Your task to perform on an android device: find snoozed emails in the gmail app Image 0: 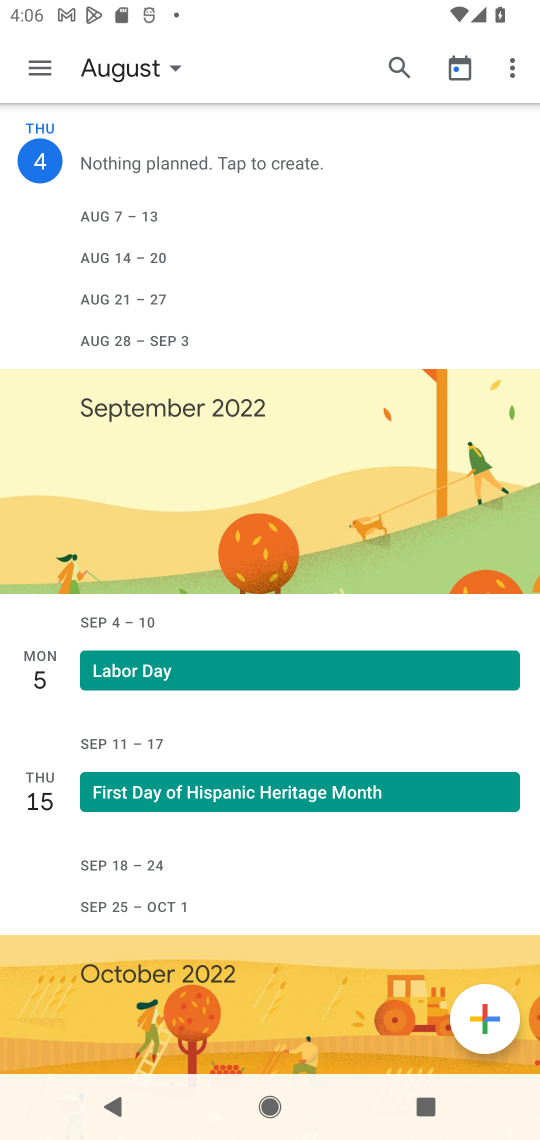
Step 0: press home button
Your task to perform on an android device: find snoozed emails in the gmail app Image 1: 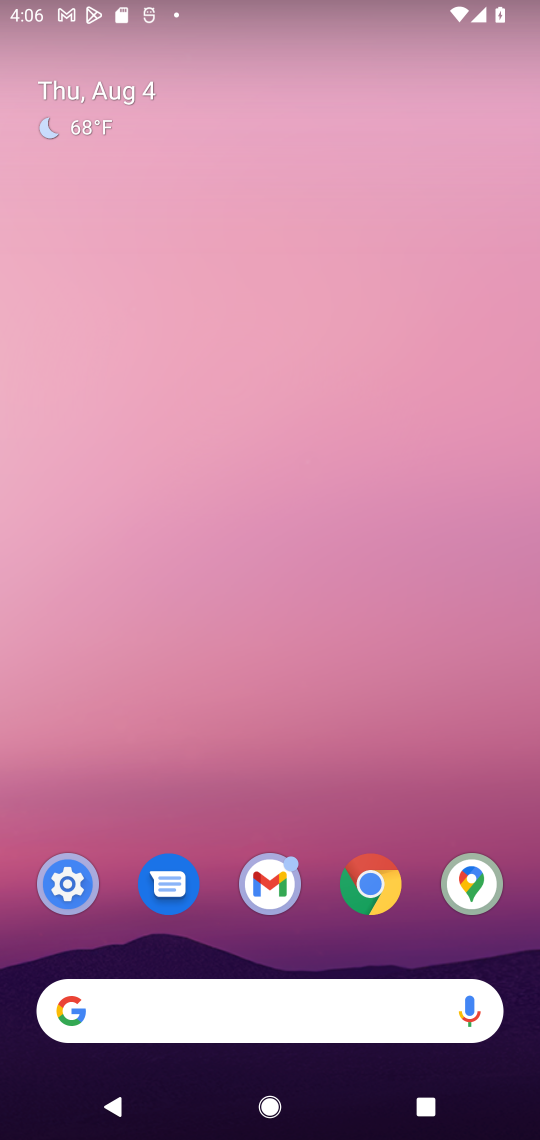
Step 1: drag from (319, 955) to (348, 260)
Your task to perform on an android device: find snoozed emails in the gmail app Image 2: 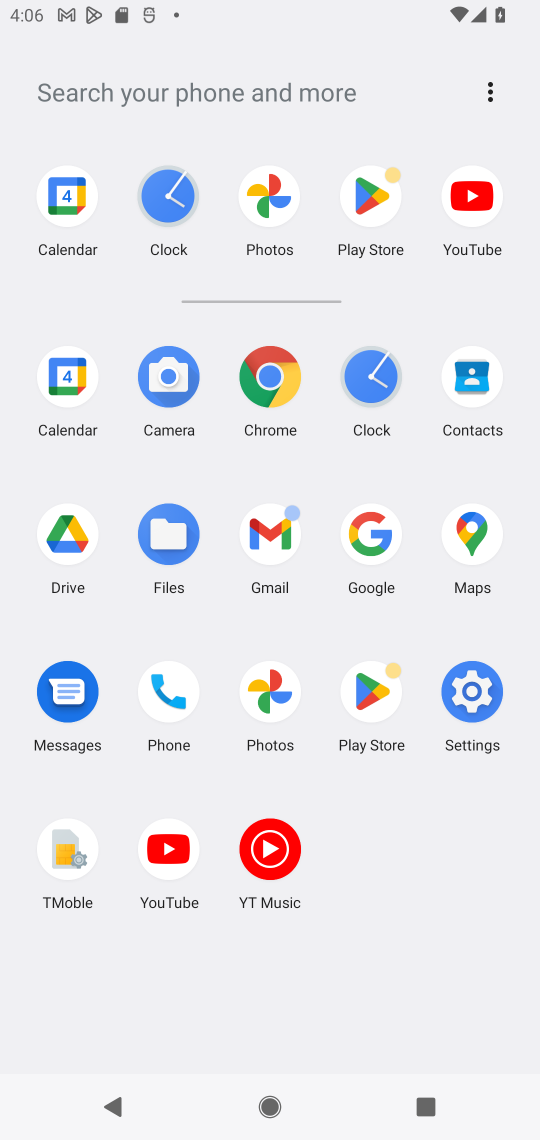
Step 2: click (301, 521)
Your task to perform on an android device: find snoozed emails in the gmail app Image 3: 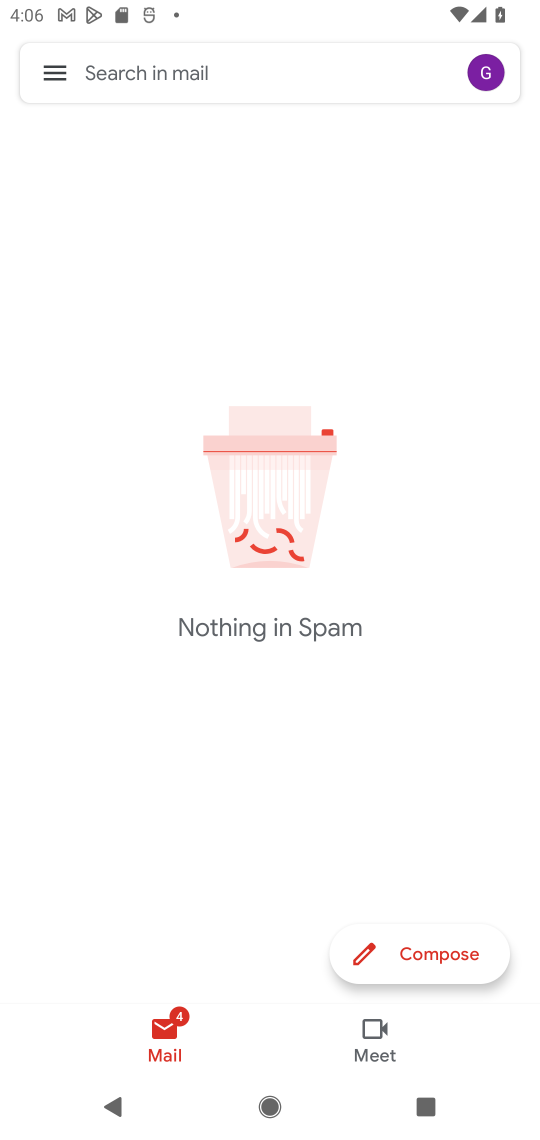
Step 3: task complete